Your task to perform on an android device: What's the weather going to be tomorrow? Image 0: 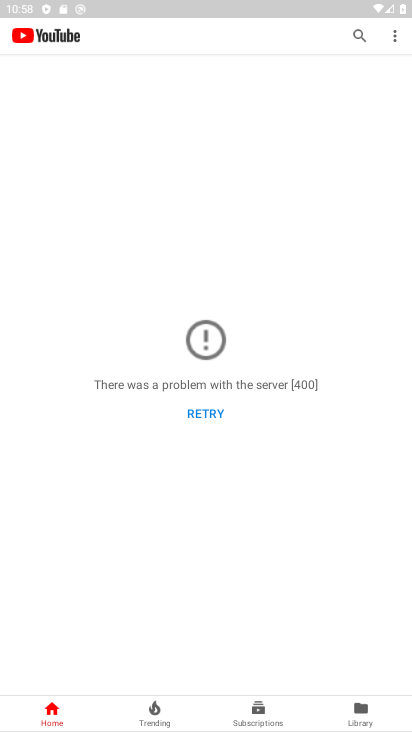
Step 0: press home button
Your task to perform on an android device: What's the weather going to be tomorrow? Image 1: 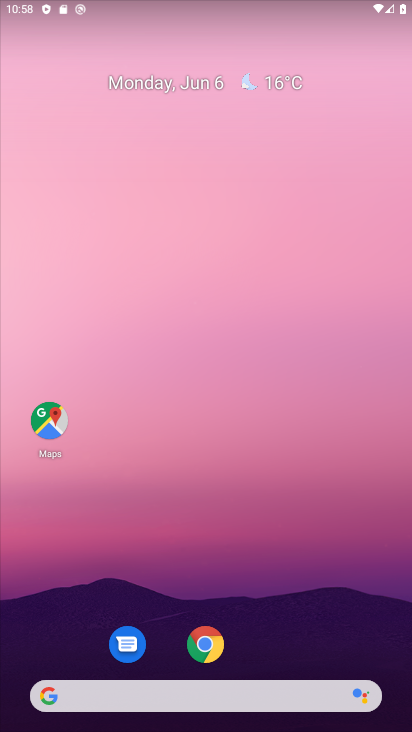
Step 1: drag from (264, 637) to (264, 175)
Your task to perform on an android device: What's the weather going to be tomorrow? Image 2: 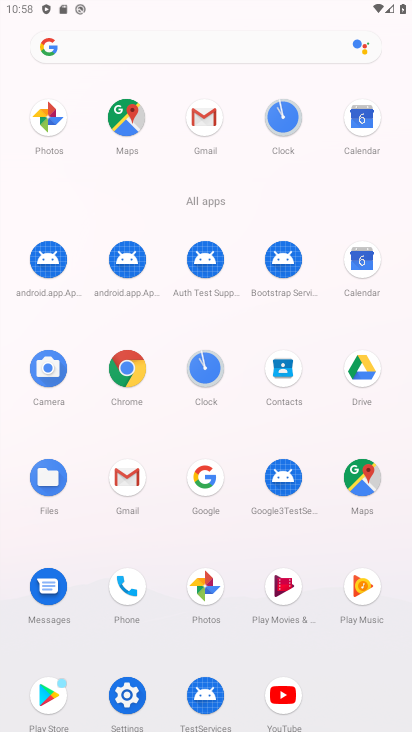
Step 2: click (128, 362)
Your task to perform on an android device: What's the weather going to be tomorrow? Image 3: 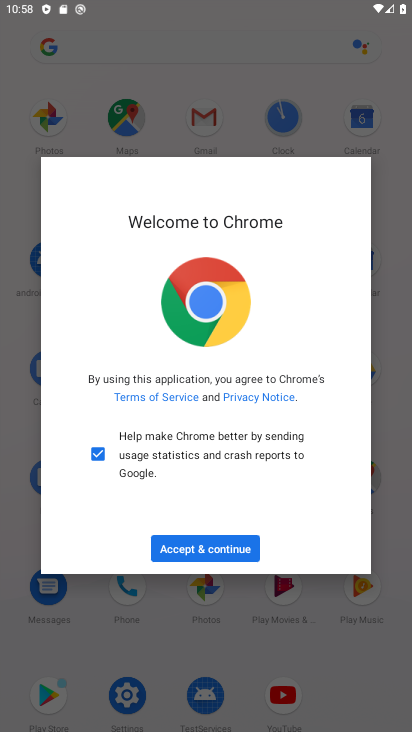
Step 3: click (206, 547)
Your task to perform on an android device: What's the weather going to be tomorrow? Image 4: 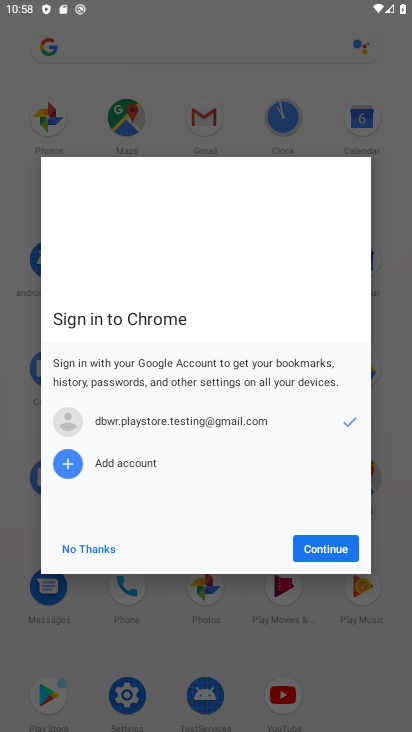
Step 4: click (346, 551)
Your task to perform on an android device: What's the weather going to be tomorrow? Image 5: 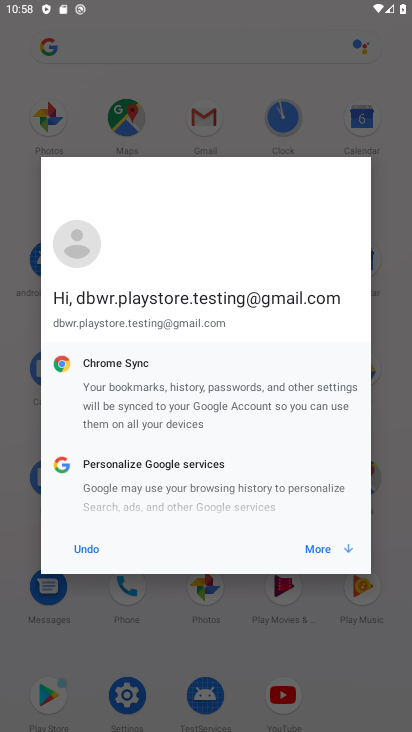
Step 5: click (346, 551)
Your task to perform on an android device: What's the weather going to be tomorrow? Image 6: 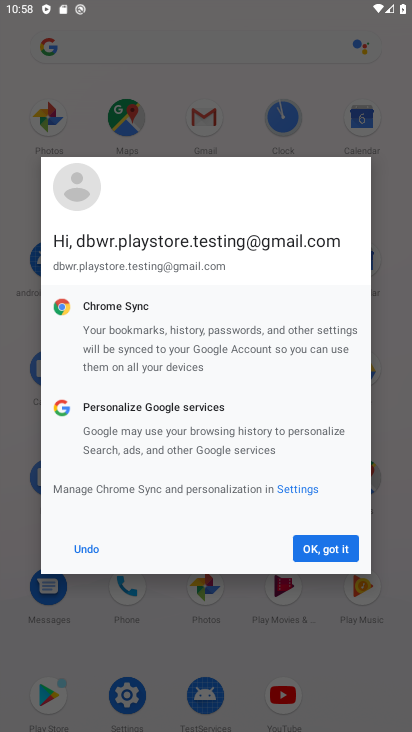
Step 6: click (346, 551)
Your task to perform on an android device: What's the weather going to be tomorrow? Image 7: 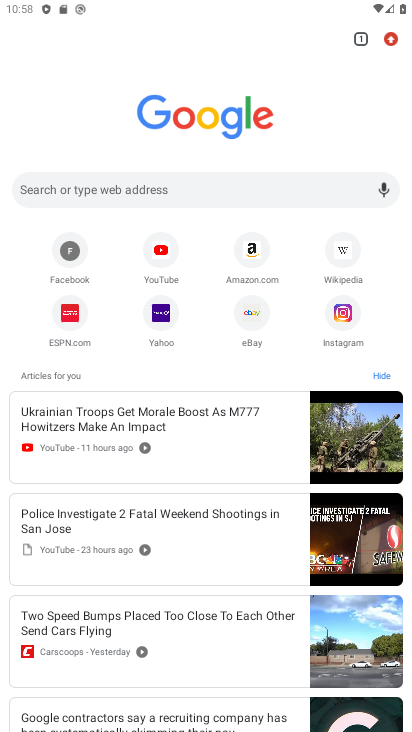
Step 7: click (313, 198)
Your task to perform on an android device: What's the weather going to be tomorrow? Image 8: 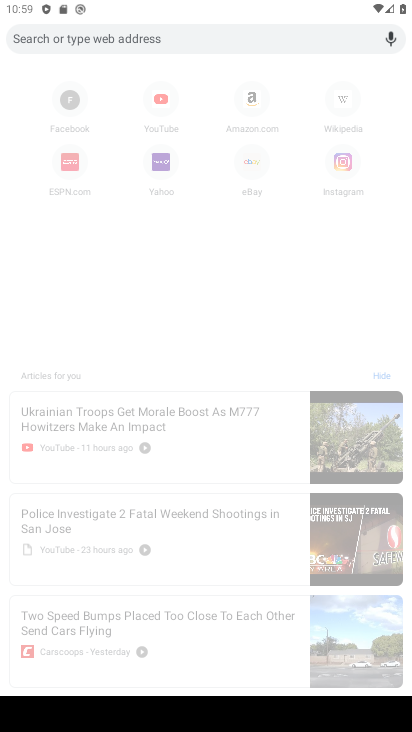
Step 8: type "What's the weather going to be tomorrow?"
Your task to perform on an android device: What's the weather going to be tomorrow? Image 9: 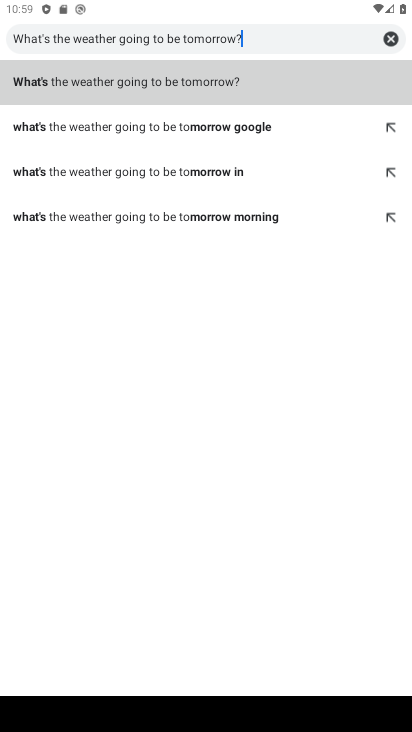
Step 9: click (231, 80)
Your task to perform on an android device: What's the weather going to be tomorrow? Image 10: 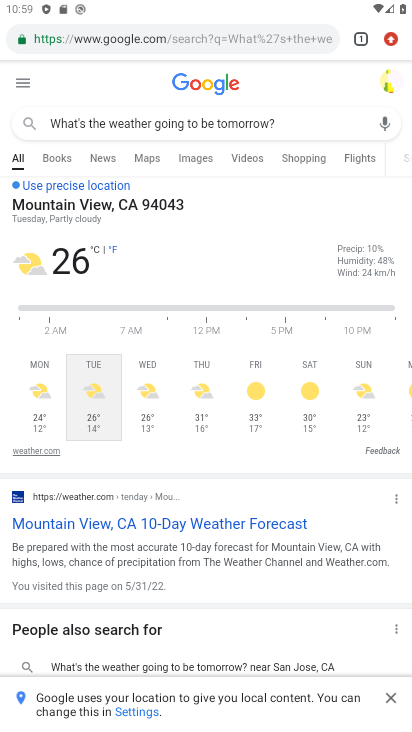
Step 10: click (151, 372)
Your task to perform on an android device: What's the weather going to be tomorrow? Image 11: 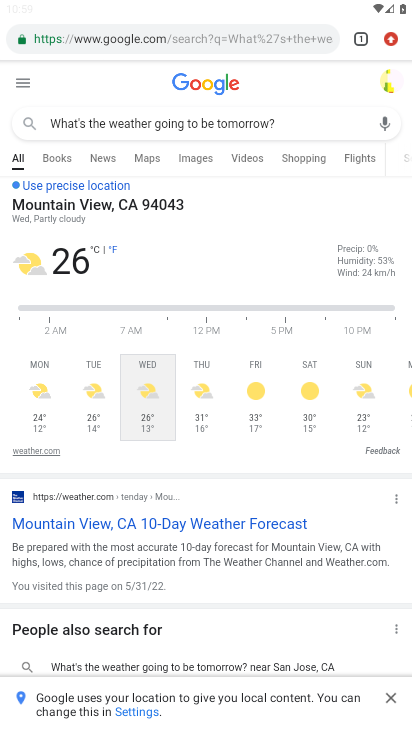
Step 11: task complete